Your task to perform on an android device: open a new tab in the chrome app Image 0: 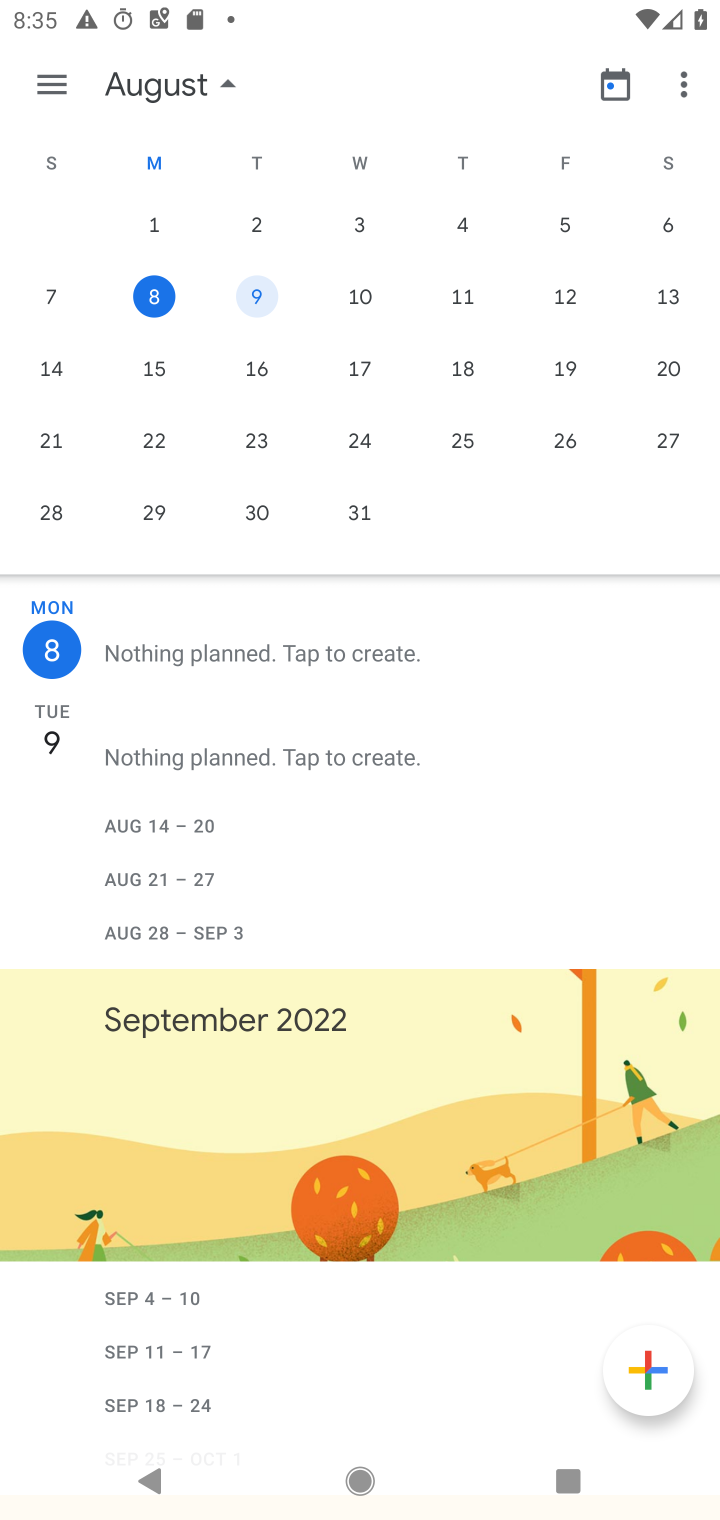
Step 0: press home button
Your task to perform on an android device: open a new tab in the chrome app Image 1: 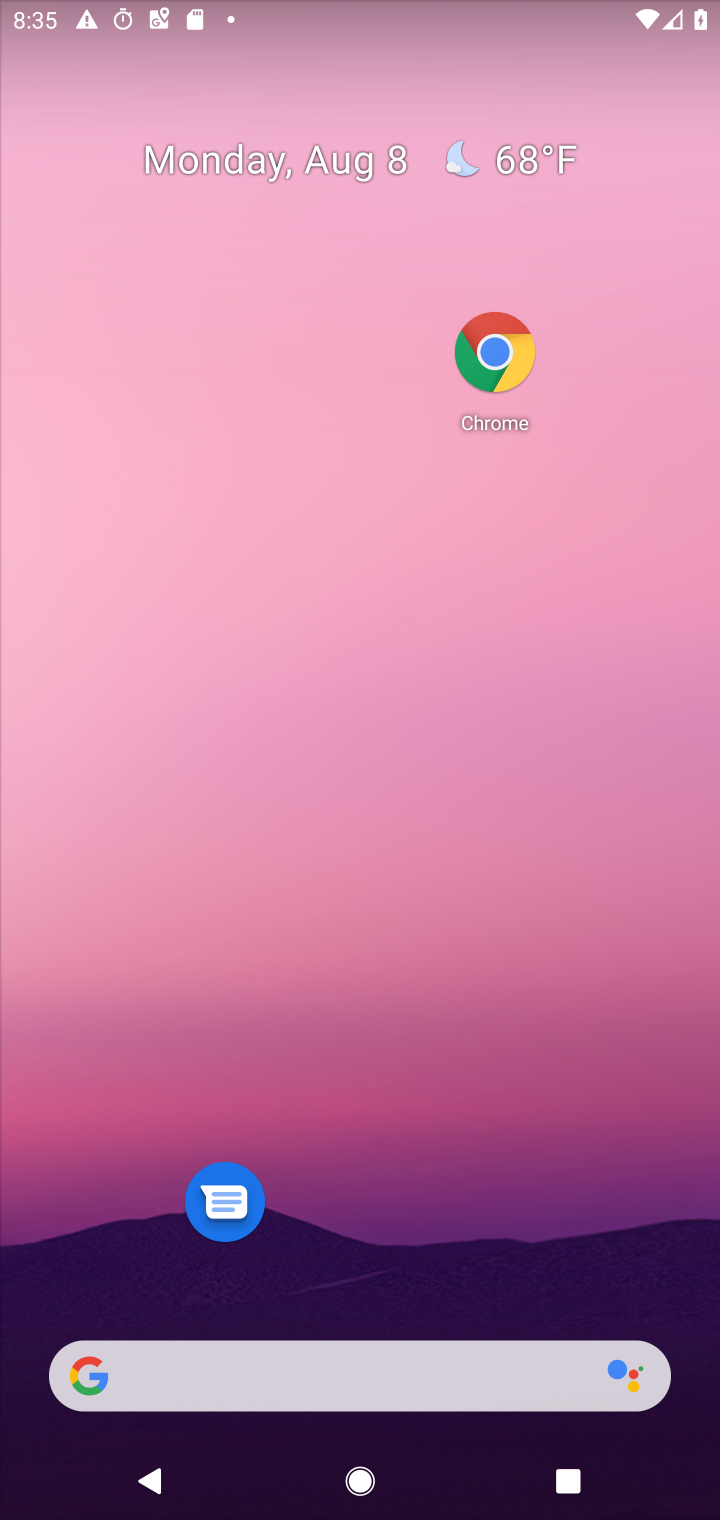
Step 1: click (505, 390)
Your task to perform on an android device: open a new tab in the chrome app Image 2: 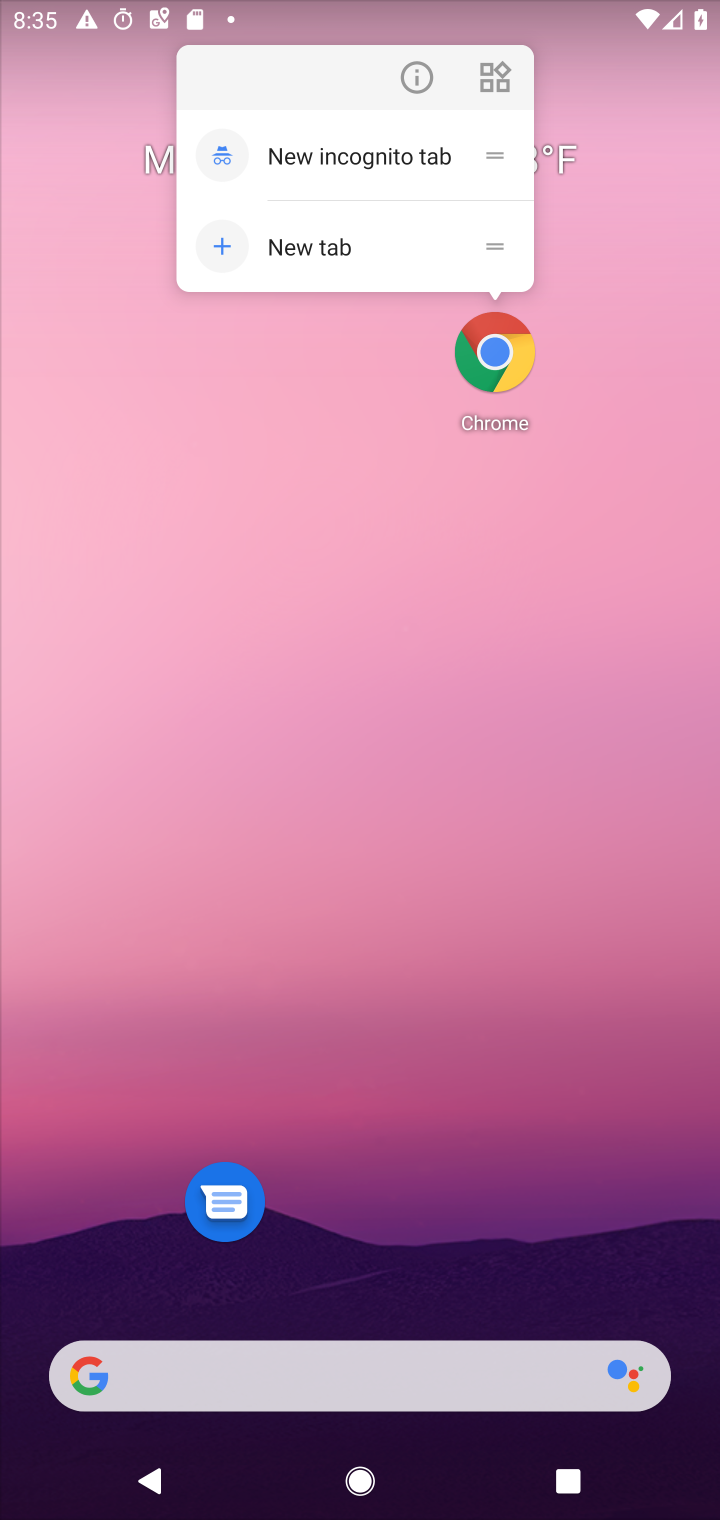
Step 2: click (481, 371)
Your task to perform on an android device: open a new tab in the chrome app Image 3: 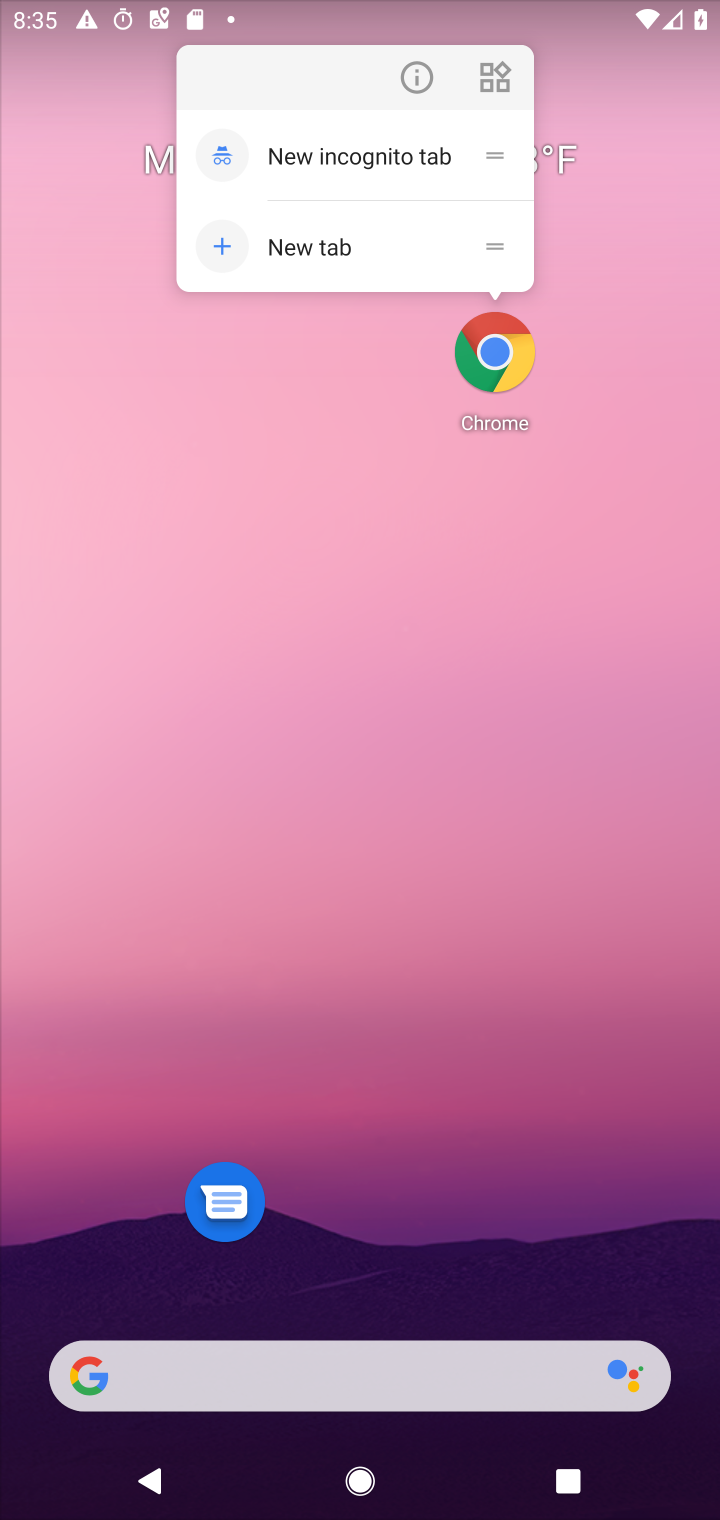
Step 3: click (489, 384)
Your task to perform on an android device: open a new tab in the chrome app Image 4: 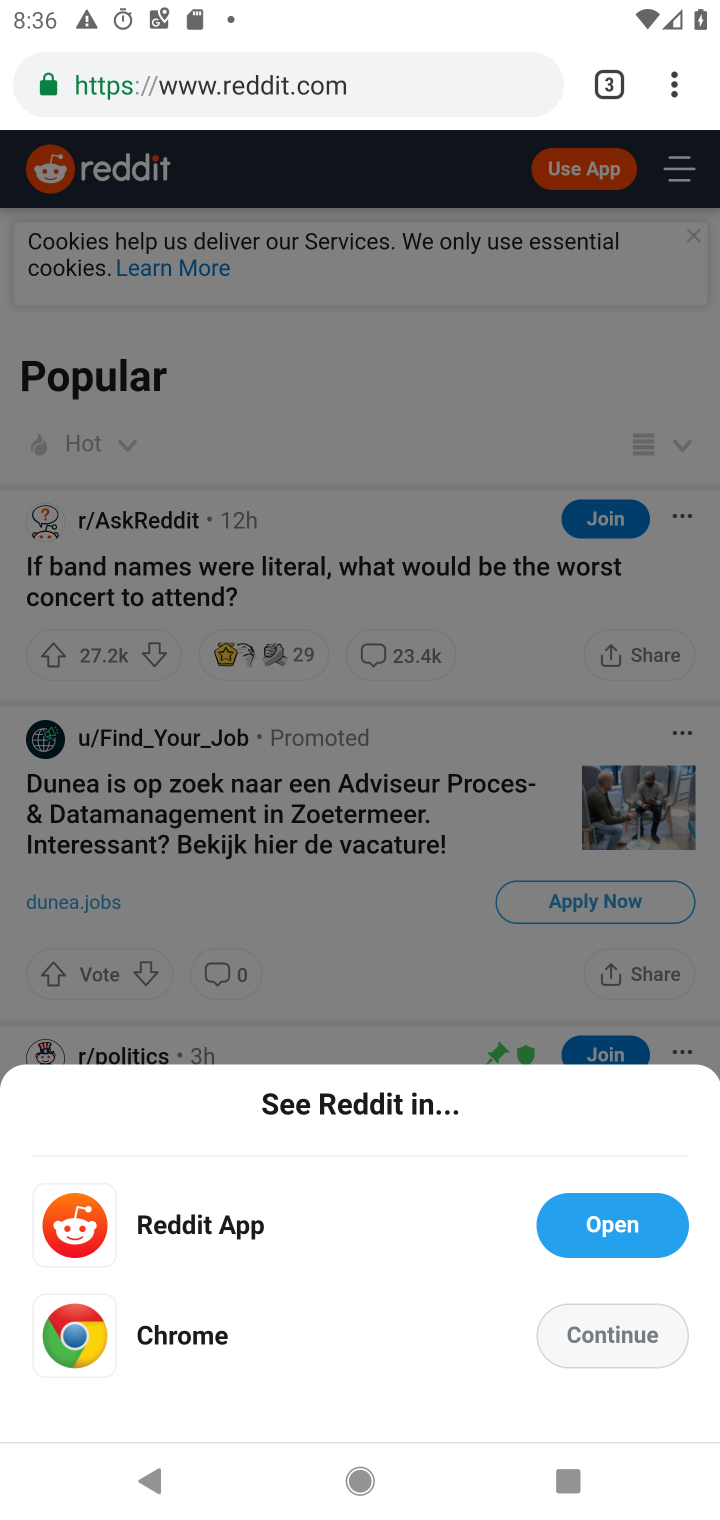
Step 4: drag from (626, 100) to (531, 779)
Your task to perform on an android device: open a new tab in the chrome app Image 5: 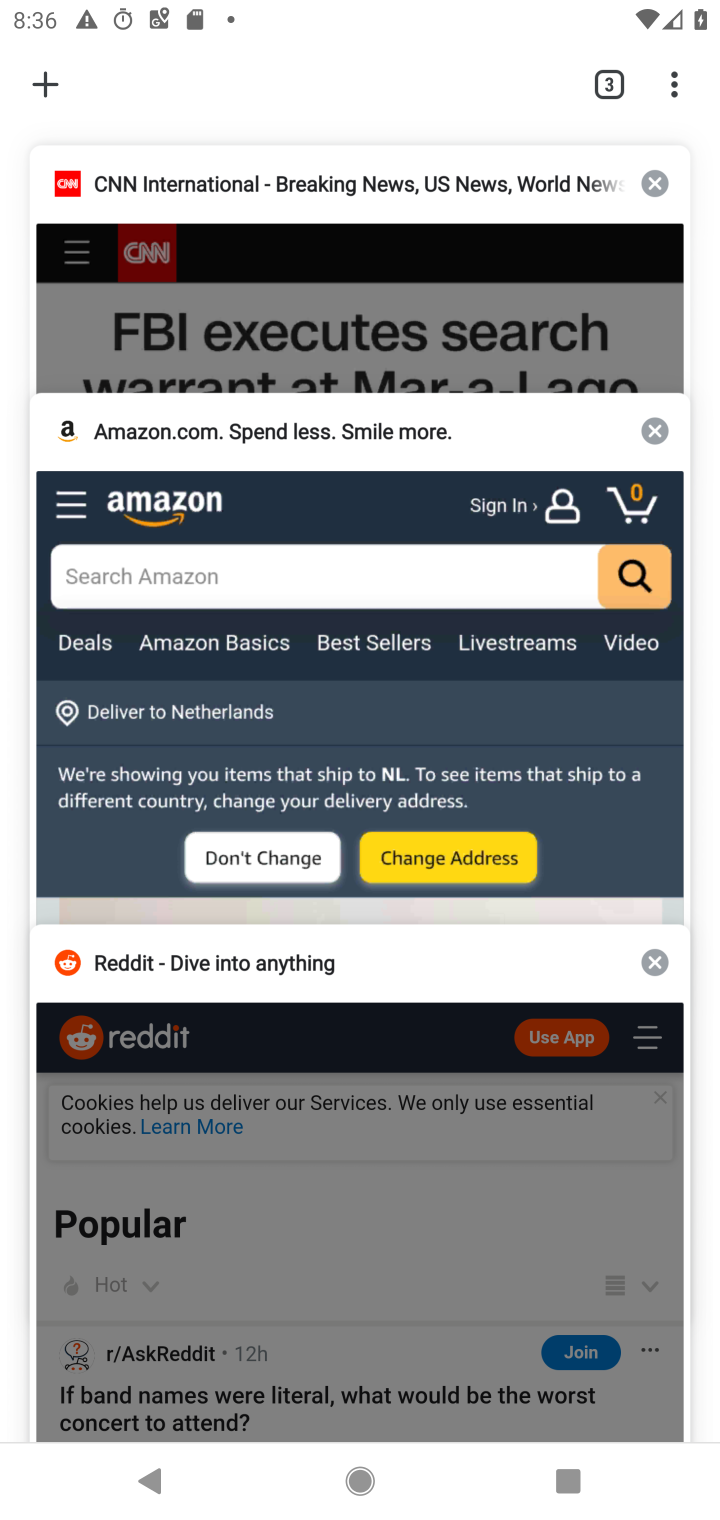
Step 5: click (50, 85)
Your task to perform on an android device: open a new tab in the chrome app Image 6: 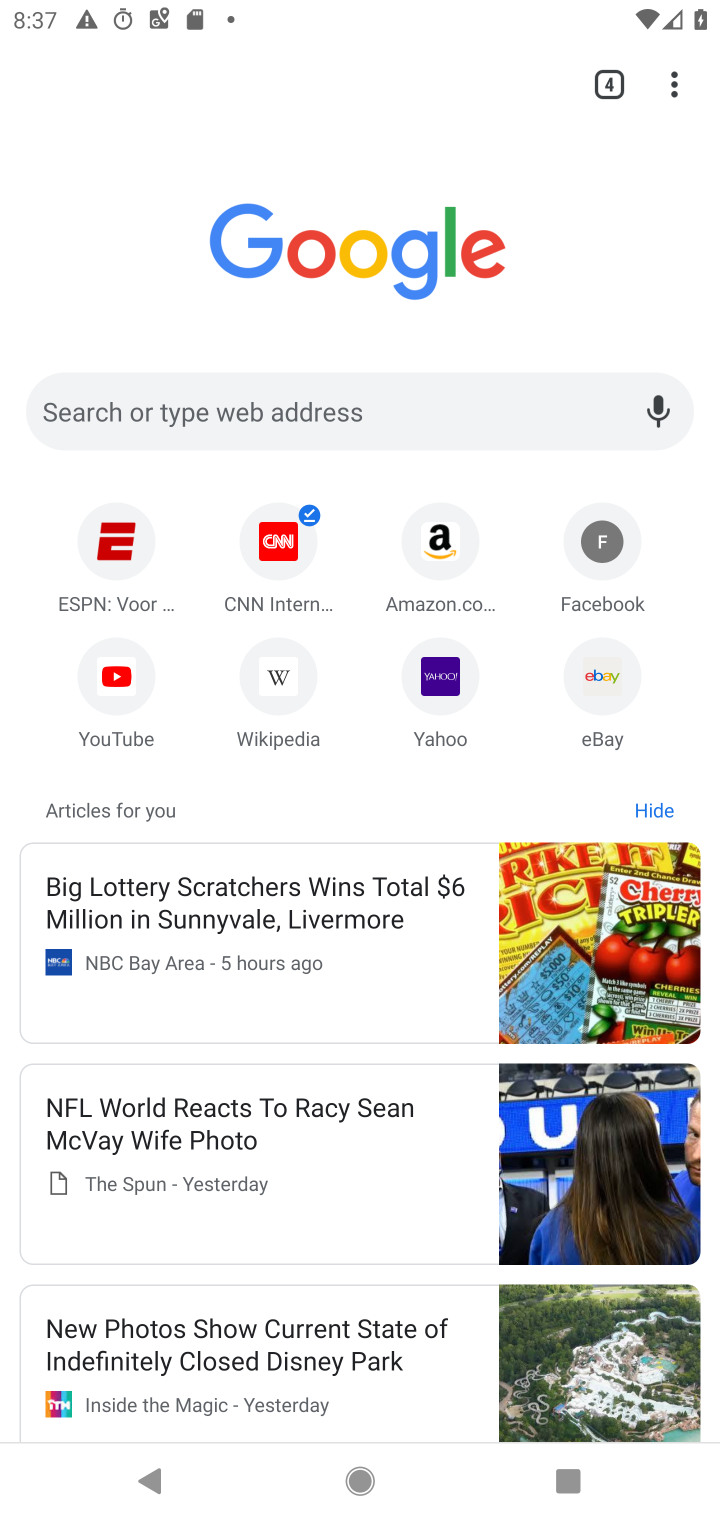
Step 6: task complete